Your task to perform on an android device: turn off improve location accuracy Image 0: 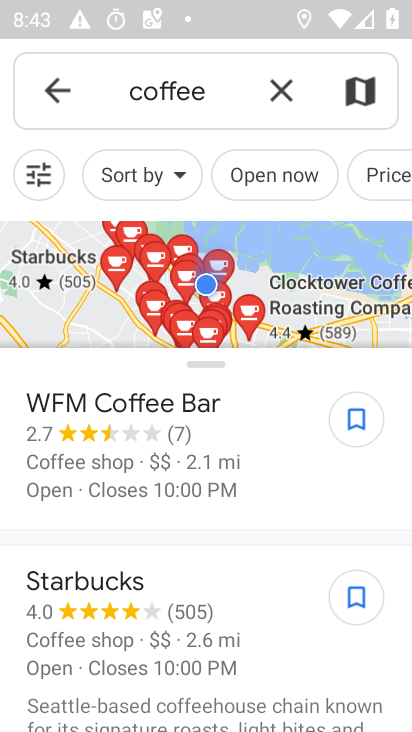
Step 0: press home button
Your task to perform on an android device: turn off improve location accuracy Image 1: 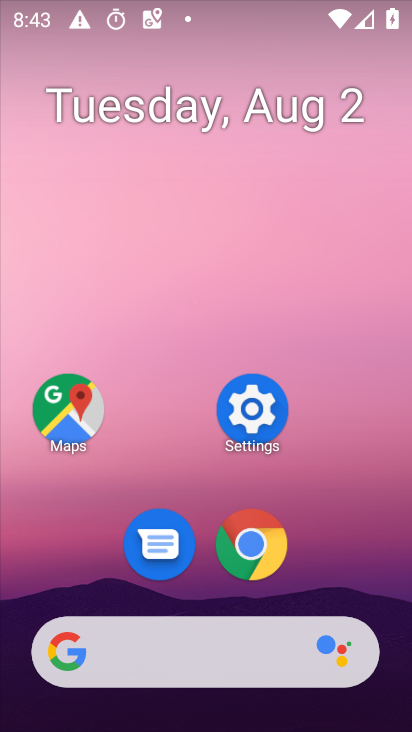
Step 1: click (257, 417)
Your task to perform on an android device: turn off improve location accuracy Image 2: 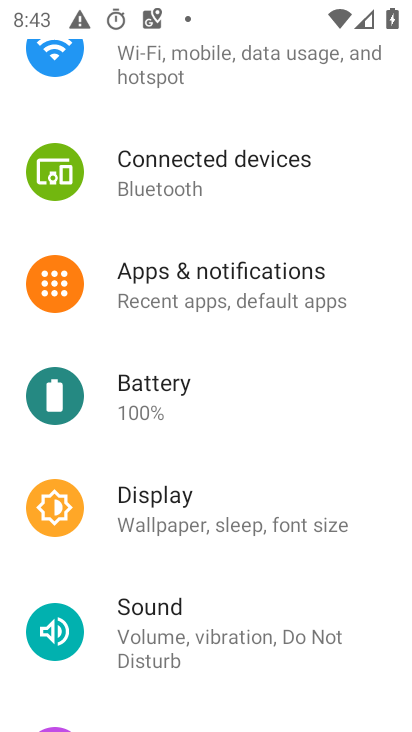
Step 2: drag from (201, 602) to (312, 321)
Your task to perform on an android device: turn off improve location accuracy Image 3: 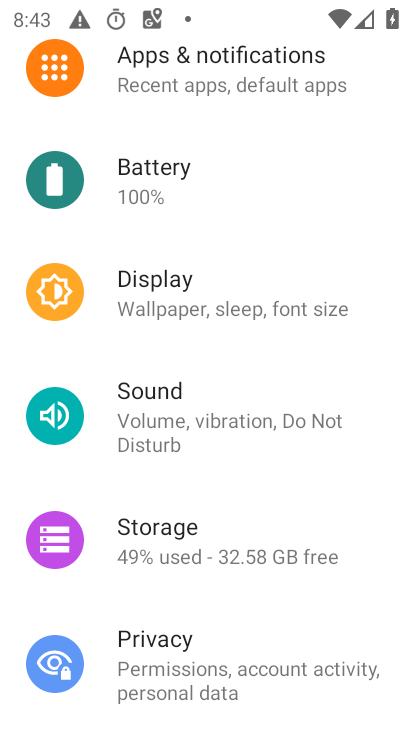
Step 3: drag from (174, 625) to (344, 176)
Your task to perform on an android device: turn off improve location accuracy Image 4: 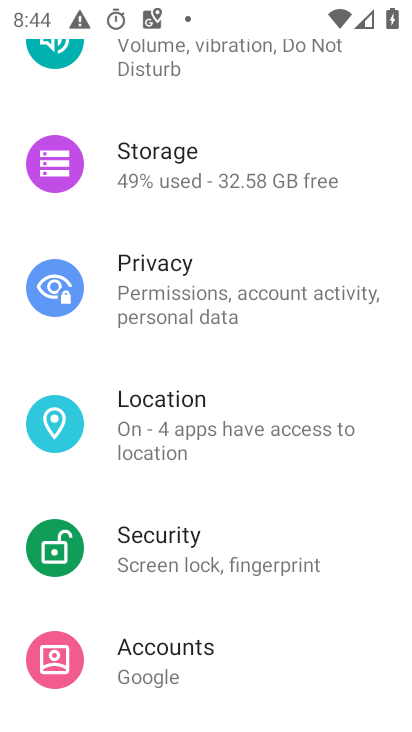
Step 4: click (183, 423)
Your task to perform on an android device: turn off improve location accuracy Image 5: 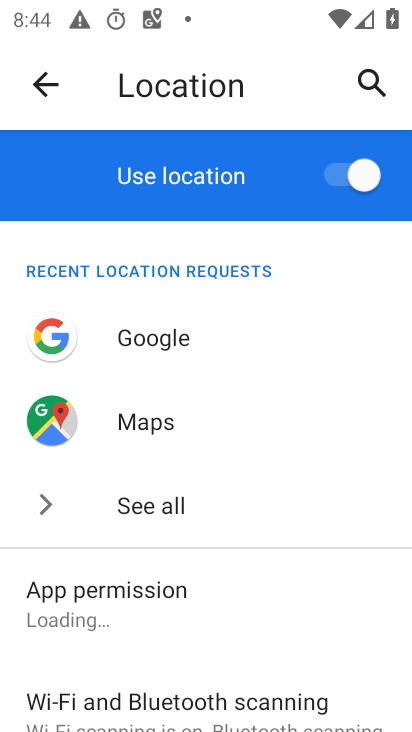
Step 5: drag from (189, 612) to (345, 138)
Your task to perform on an android device: turn off improve location accuracy Image 6: 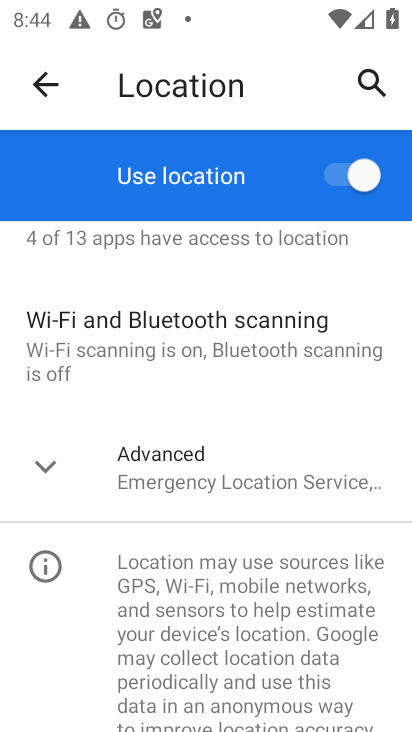
Step 6: click (155, 468)
Your task to perform on an android device: turn off improve location accuracy Image 7: 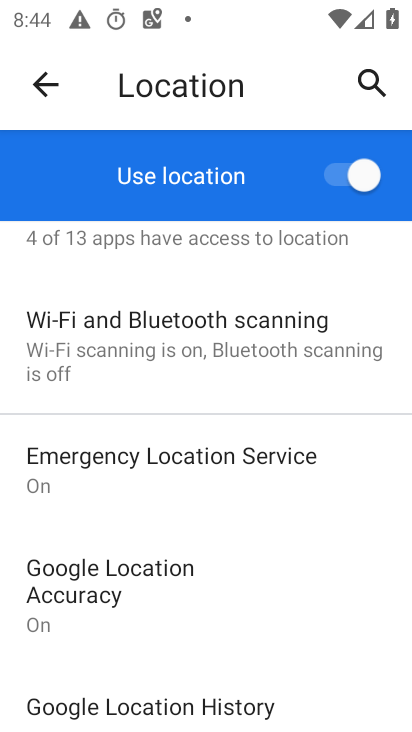
Step 7: drag from (238, 586) to (348, 224)
Your task to perform on an android device: turn off improve location accuracy Image 8: 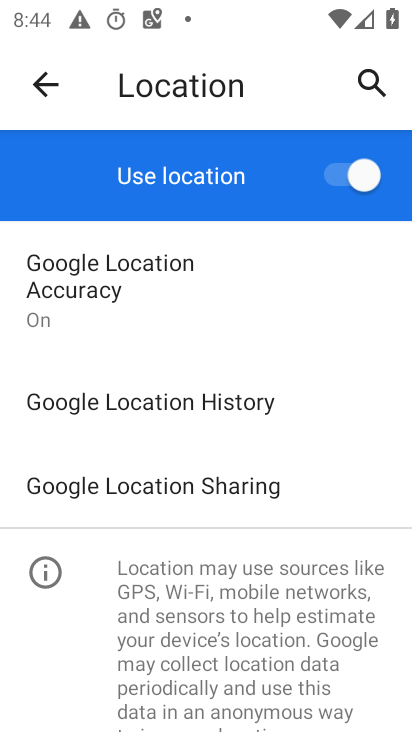
Step 8: drag from (309, 305) to (207, 647)
Your task to perform on an android device: turn off improve location accuracy Image 9: 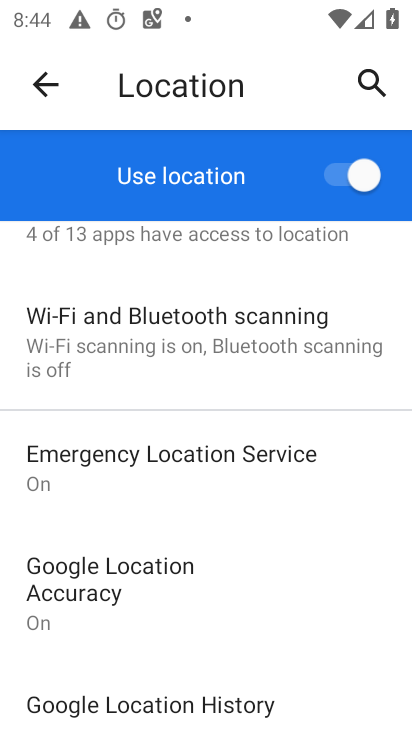
Step 9: click (122, 567)
Your task to perform on an android device: turn off improve location accuracy Image 10: 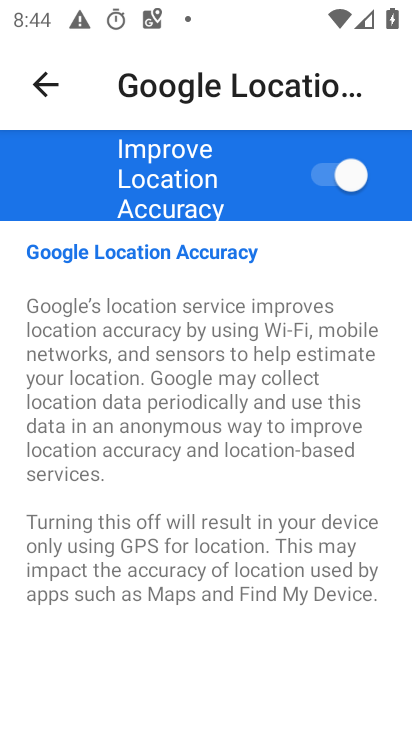
Step 10: click (331, 175)
Your task to perform on an android device: turn off improve location accuracy Image 11: 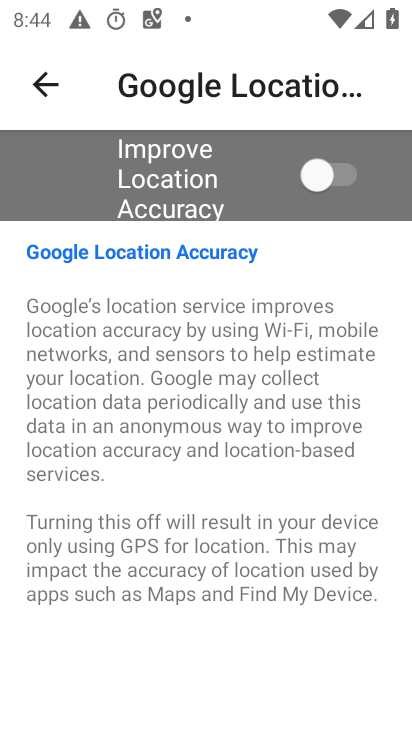
Step 11: task complete